Your task to perform on an android device: Go to Maps Image 0: 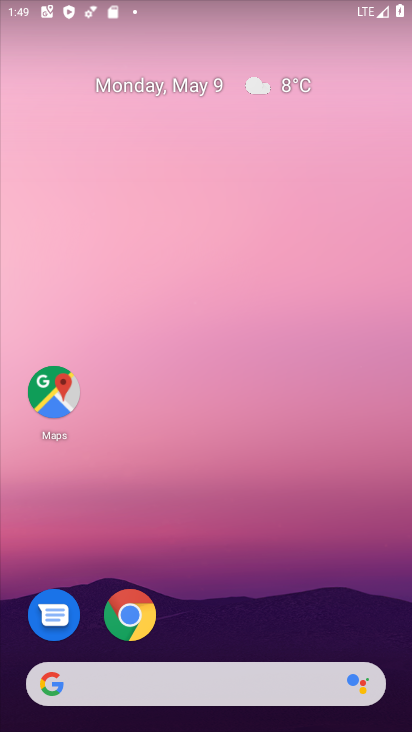
Step 0: click (52, 389)
Your task to perform on an android device: Go to Maps Image 1: 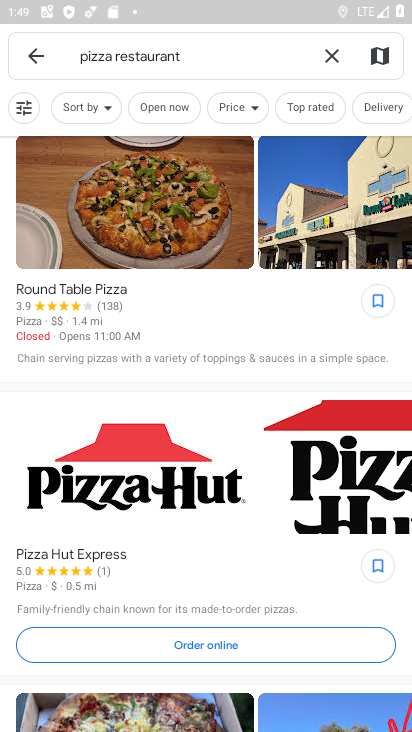
Step 1: click (330, 54)
Your task to perform on an android device: Go to Maps Image 2: 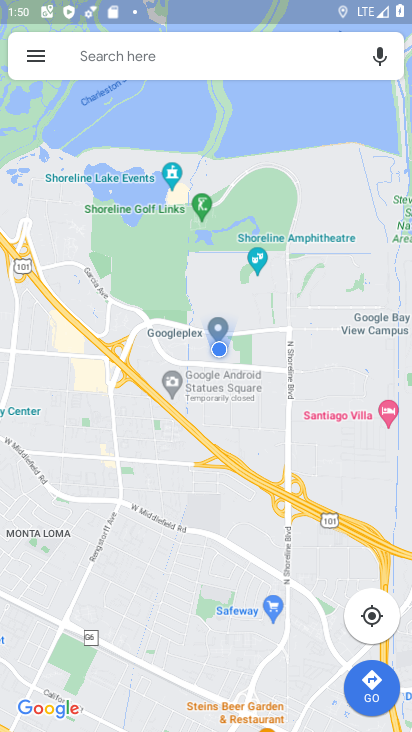
Step 2: task complete